Your task to perform on an android device: uninstall "Adobe Acrobat Reader: Edit PDF" Image 0: 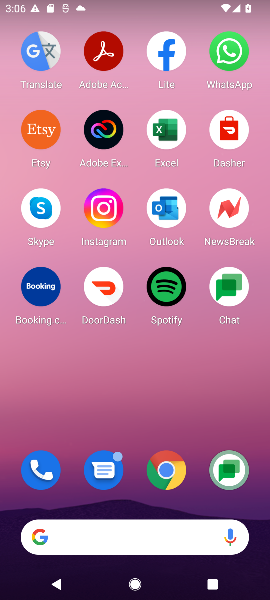
Step 0: drag from (116, 490) to (122, 91)
Your task to perform on an android device: uninstall "Adobe Acrobat Reader: Edit PDF" Image 1: 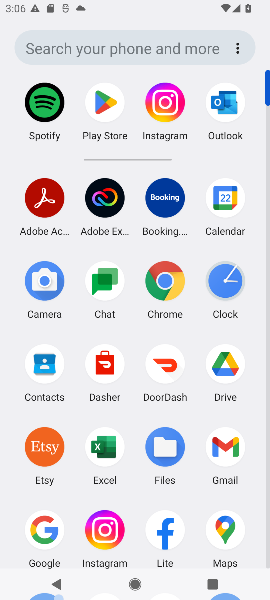
Step 1: click (103, 95)
Your task to perform on an android device: uninstall "Adobe Acrobat Reader: Edit PDF" Image 2: 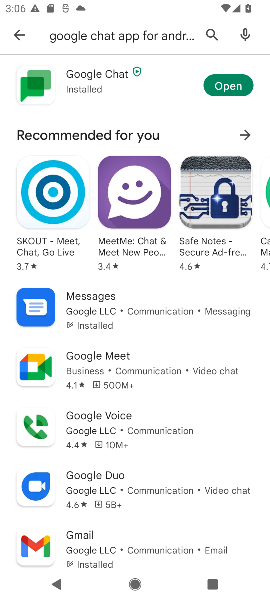
Step 2: click (18, 32)
Your task to perform on an android device: uninstall "Adobe Acrobat Reader: Edit PDF" Image 3: 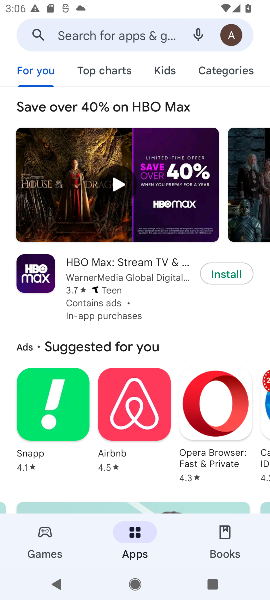
Step 3: click (105, 33)
Your task to perform on an android device: uninstall "Adobe Acrobat Reader: Edit PDF" Image 4: 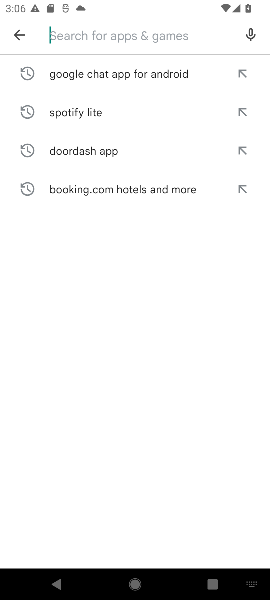
Step 4: type "Adobe Acrobat Reader "
Your task to perform on an android device: uninstall "Adobe Acrobat Reader: Edit PDF" Image 5: 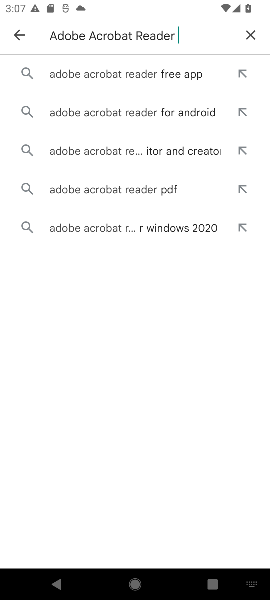
Step 5: click (138, 76)
Your task to perform on an android device: uninstall "Adobe Acrobat Reader: Edit PDF" Image 6: 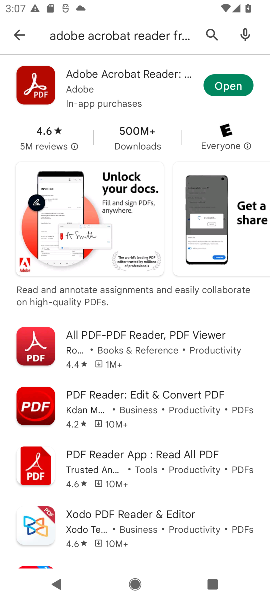
Step 6: click (129, 71)
Your task to perform on an android device: uninstall "Adobe Acrobat Reader: Edit PDF" Image 7: 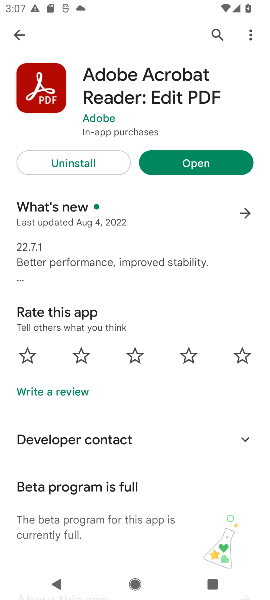
Step 7: click (62, 157)
Your task to perform on an android device: uninstall "Adobe Acrobat Reader: Edit PDF" Image 8: 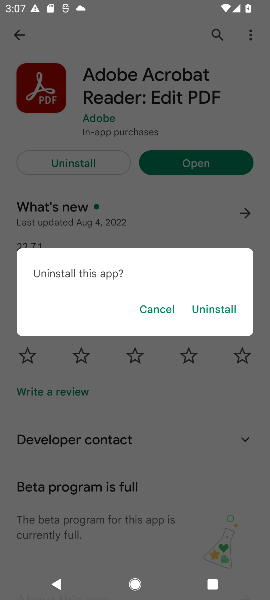
Step 8: click (210, 309)
Your task to perform on an android device: uninstall "Adobe Acrobat Reader: Edit PDF" Image 9: 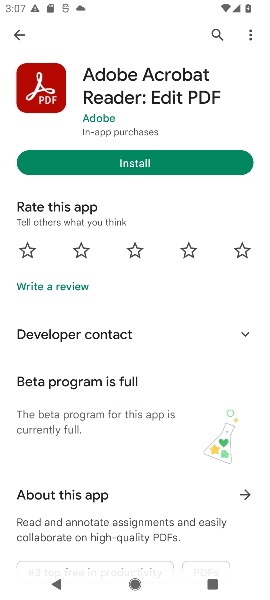
Step 9: task complete